Your task to perform on an android device: turn off priority inbox in the gmail app Image 0: 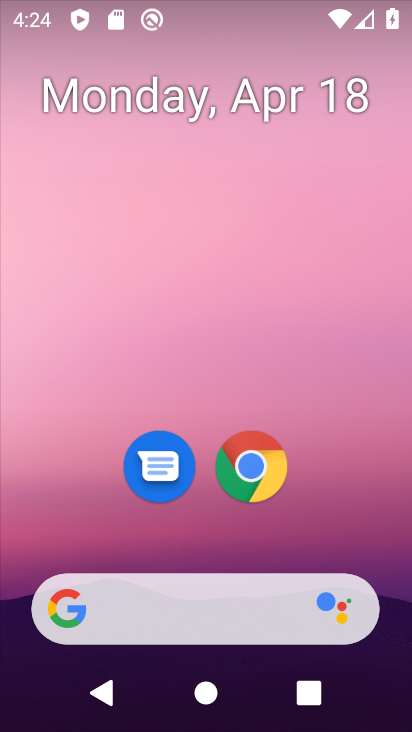
Step 0: drag from (311, 399) to (234, 11)
Your task to perform on an android device: turn off priority inbox in the gmail app Image 1: 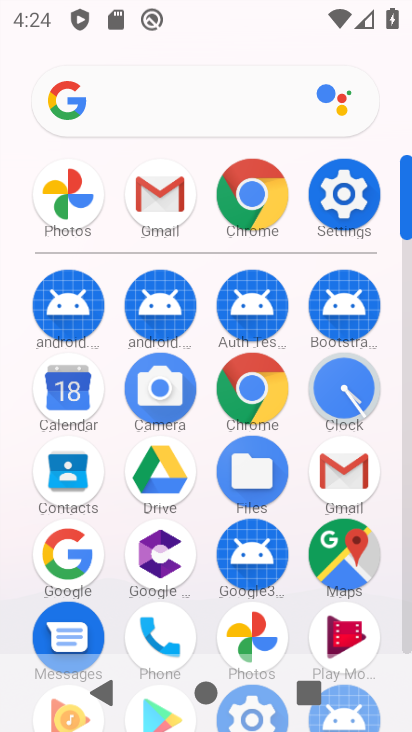
Step 1: drag from (11, 598) to (16, 357)
Your task to perform on an android device: turn off priority inbox in the gmail app Image 2: 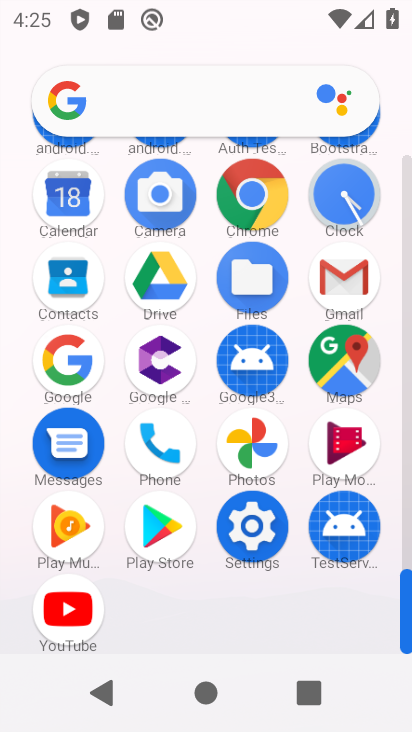
Step 2: click (342, 278)
Your task to perform on an android device: turn off priority inbox in the gmail app Image 3: 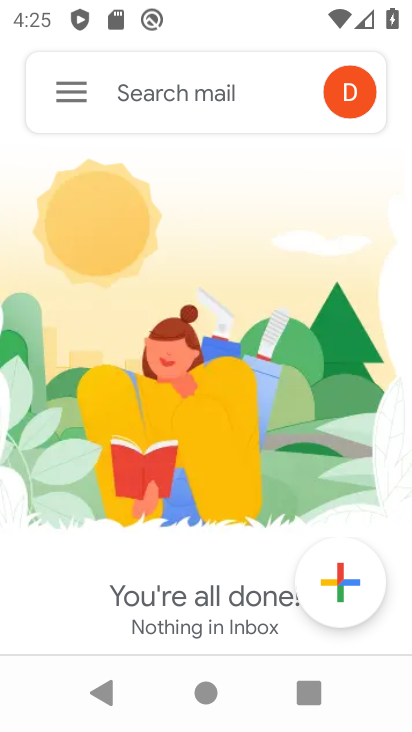
Step 3: click (62, 86)
Your task to perform on an android device: turn off priority inbox in the gmail app Image 4: 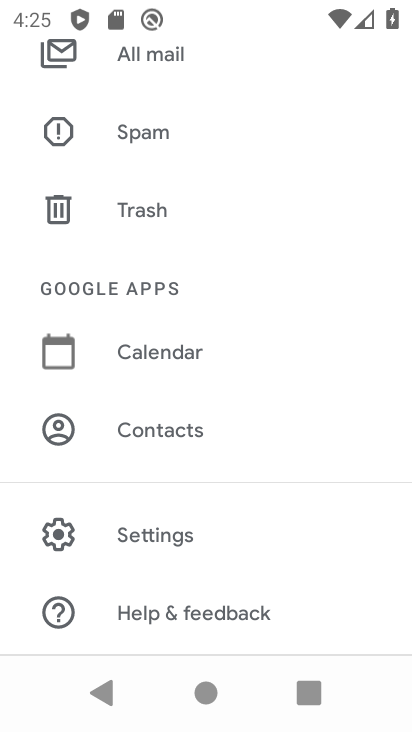
Step 4: drag from (255, 459) to (248, 84)
Your task to perform on an android device: turn off priority inbox in the gmail app Image 5: 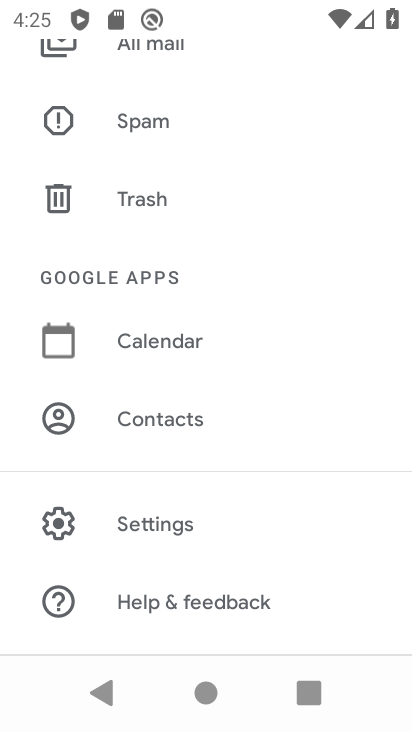
Step 5: click (180, 530)
Your task to perform on an android device: turn off priority inbox in the gmail app Image 6: 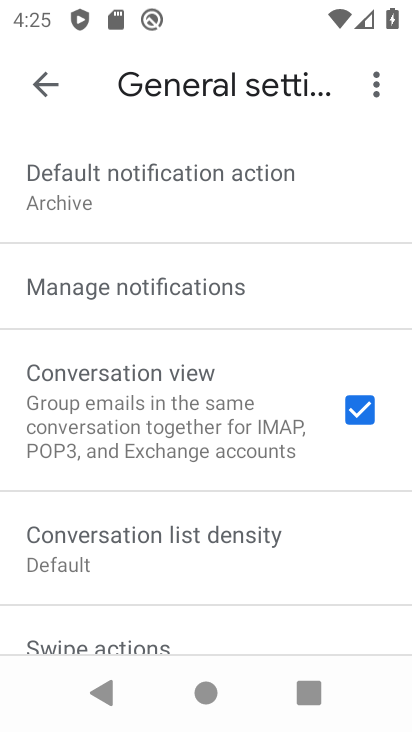
Step 6: drag from (221, 175) to (192, 512)
Your task to perform on an android device: turn off priority inbox in the gmail app Image 7: 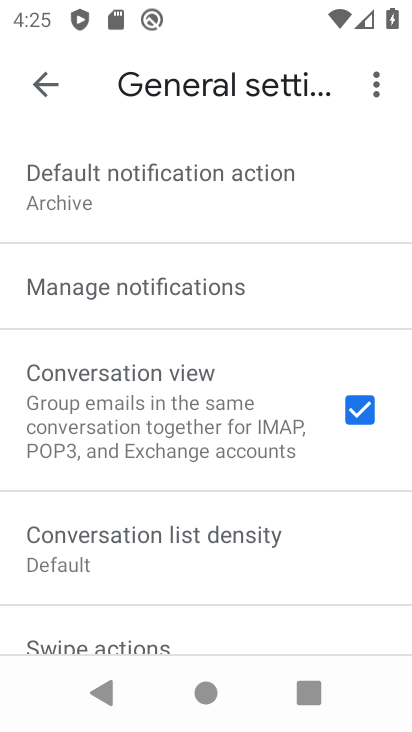
Step 7: click (132, 536)
Your task to perform on an android device: turn off priority inbox in the gmail app Image 8: 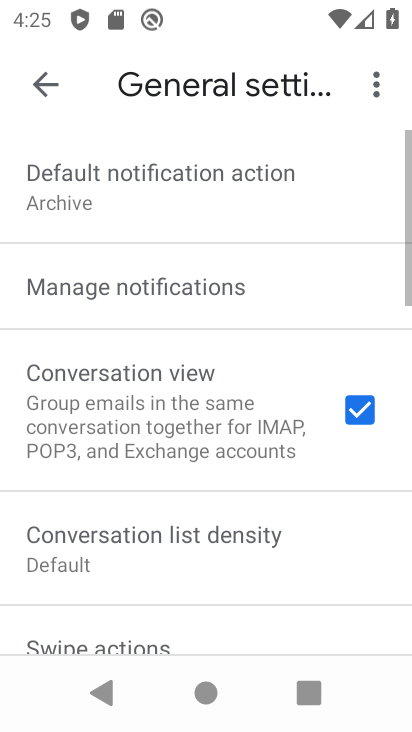
Step 8: click (46, 72)
Your task to perform on an android device: turn off priority inbox in the gmail app Image 9: 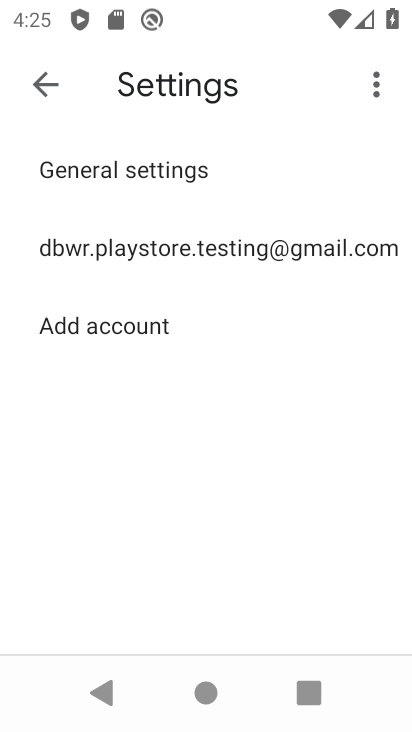
Step 9: click (158, 245)
Your task to perform on an android device: turn off priority inbox in the gmail app Image 10: 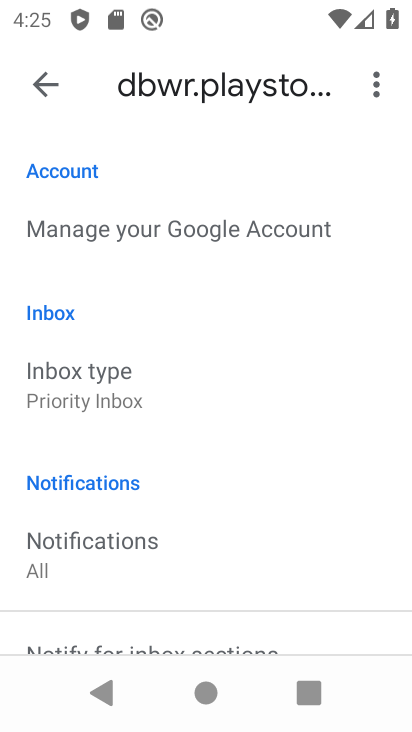
Step 10: click (154, 393)
Your task to perform on an android device: turn off priority inbox in the gmail app Image 11: 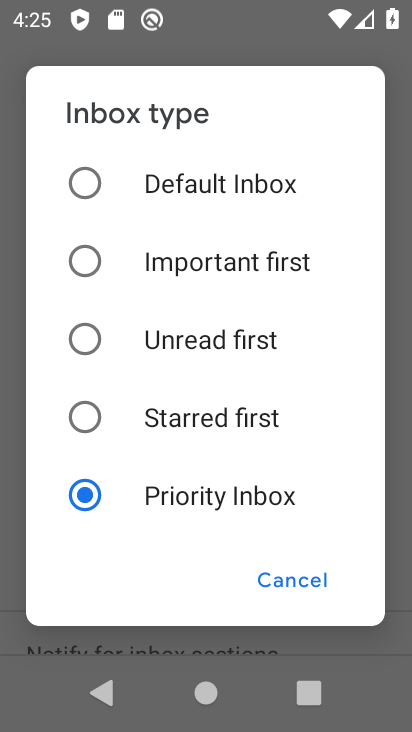
Step 11: drag from (183, 200) to (186, 396)
Your task to perform on an android device: turn off priority inbox in the gmail app Image 12: 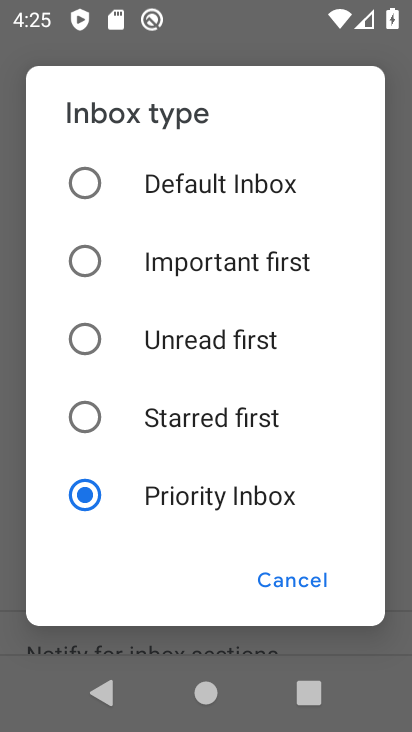
Step 12: click (177, 181)
Your task to perform on an android device: turn off priority inbox in the gmail app Image 13: 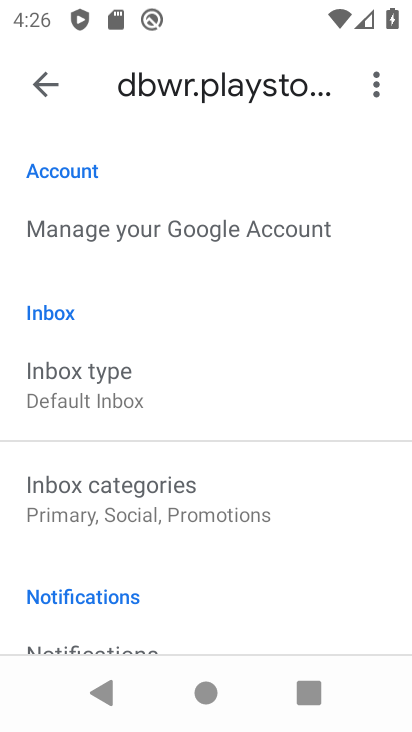
Step 13: task complete